Your task to perform on an android device: open wifi settings Image 0: 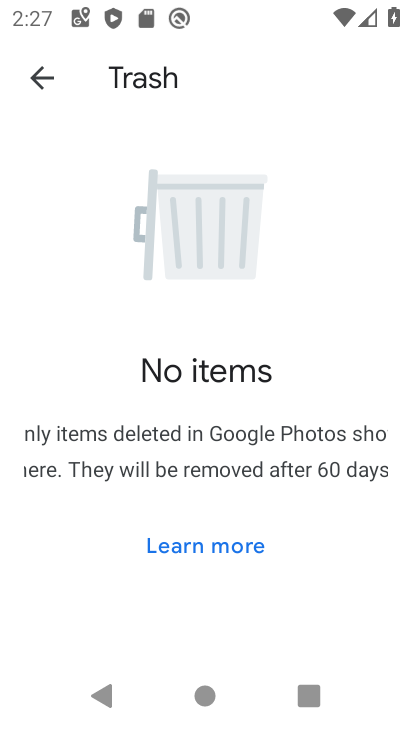
Step 0: press home button
Your task to perform on an android device: open wifi settings Image 1: 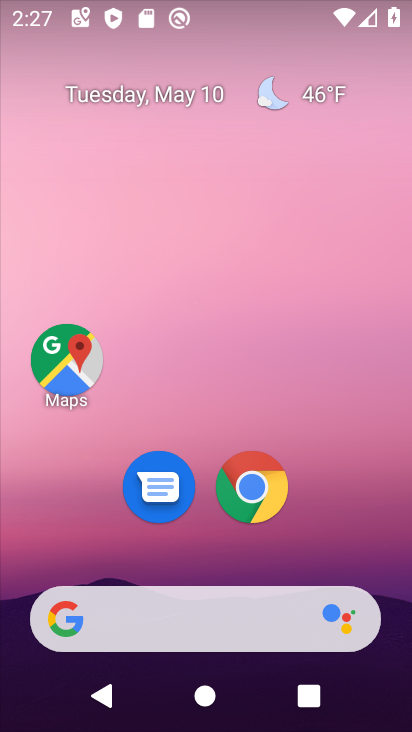
Step 1: drag from (356, 498) to (277, 117)
Your task to perform on an android device: open wifi settings Image 2: 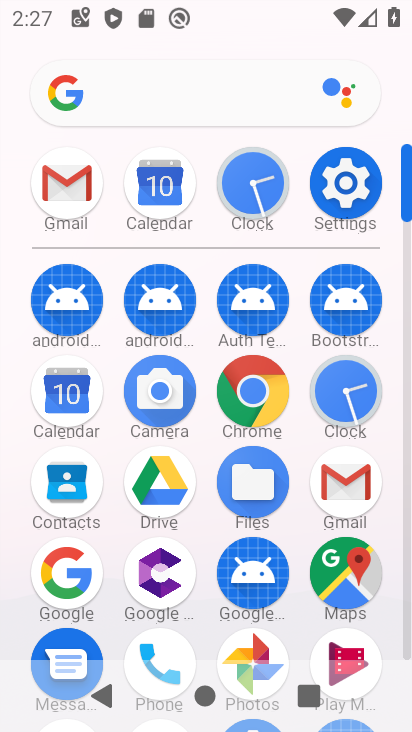
Step 2: click (347, 186)
Your task to perform on an android device: open wifi settings Image 3: 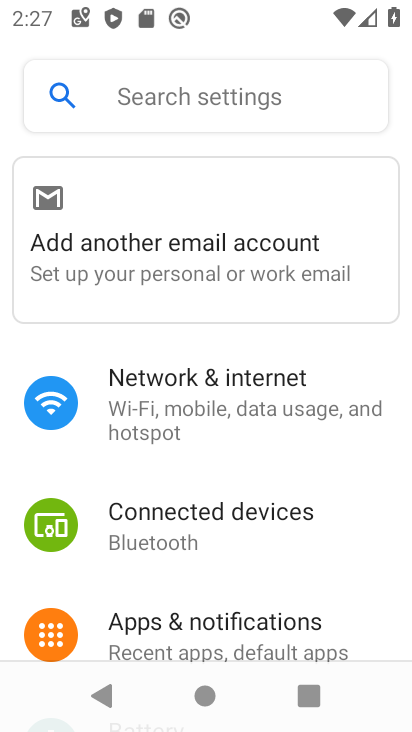
Step 3: drag from (271, 532) to (290, 185)
Your task to perform on an android device: open wifi settings Image 4: 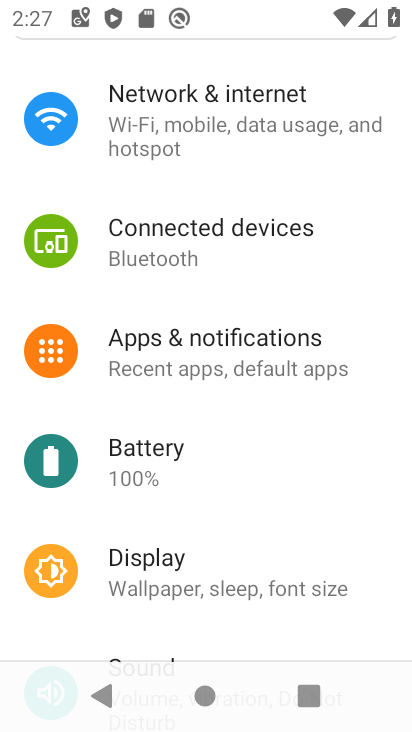
Step 4: click (230, 134)
Your task to perform on an android device: open wifi settings Image 5: 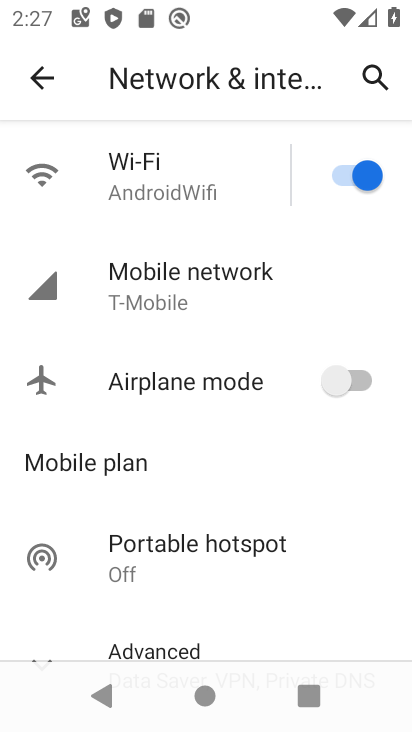
Step 5: click (219, 174)
Your task to perform on an android device: open wifi settings Image 6: 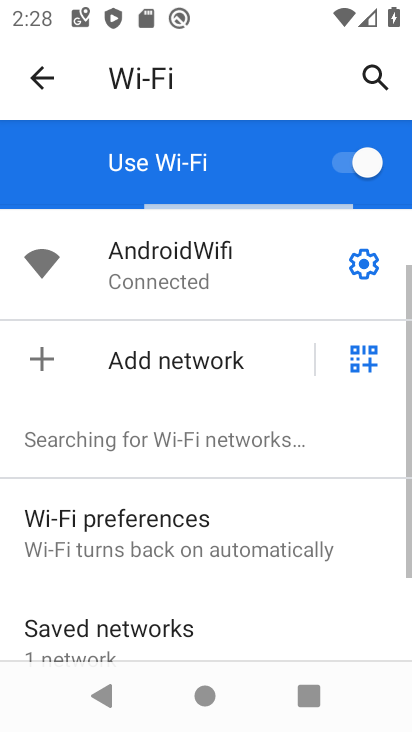
Step 6: click (369, 261)
Your task to perform on an android device: open wifi settings Image 7: 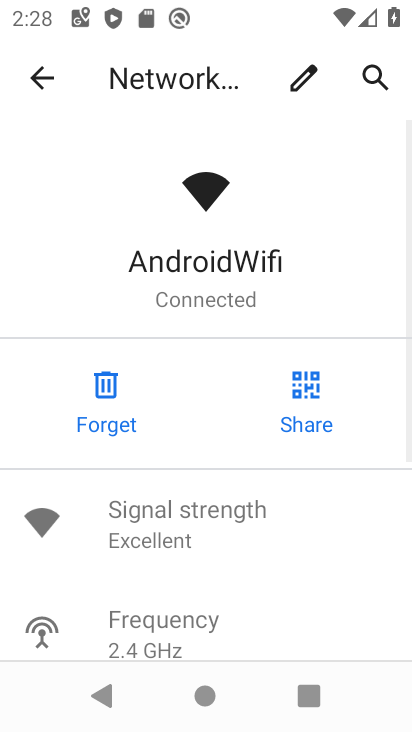
Step 7: task complete